Your task to perform on an android device: Is it going to rain this weekend? Image 0: 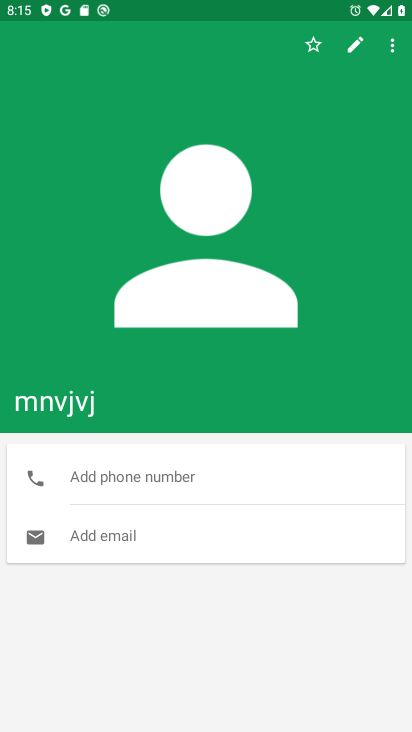
Step 0: press home button
Your task to perform on an android device: Is it going to rain this weekend? Image 1: 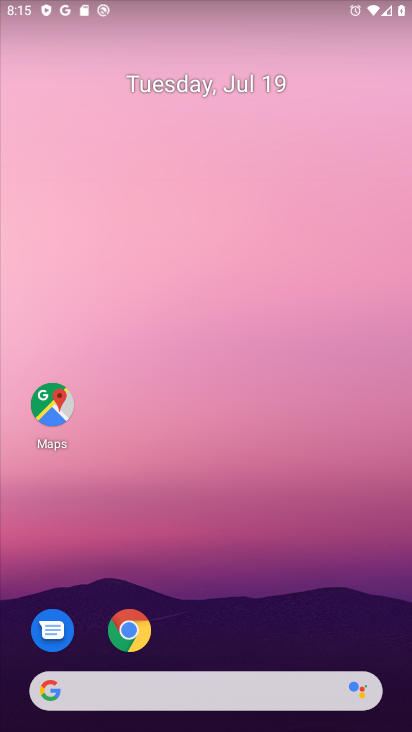
Step 1: click (201, 703)
Your task to perform on an android device: Is it going to rain this weekend? Image 2: 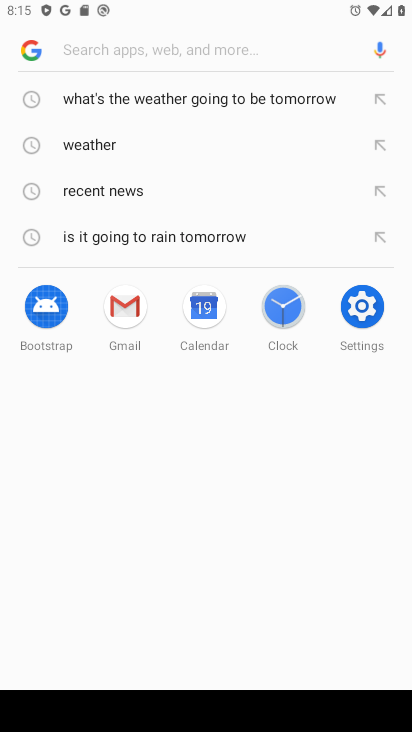
Step 2: type "is it going to rain this weekend"
Your task to perform on an android device: Is it going to rain this weekend? Image 3: 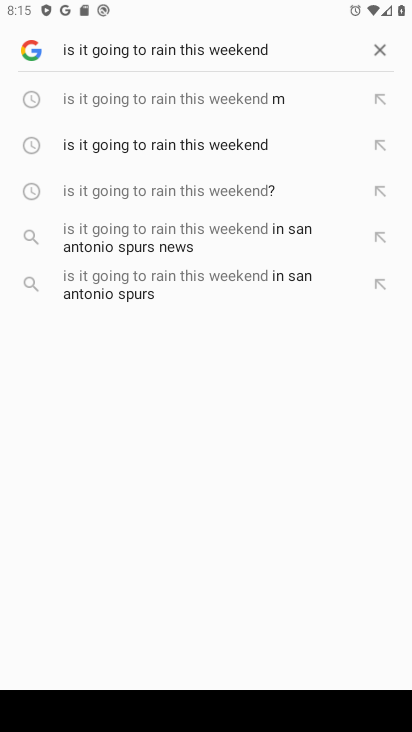
Step 3: click (198, 199)
Your task to perform on an android device: Is it going to rain this weekend? Image 4: 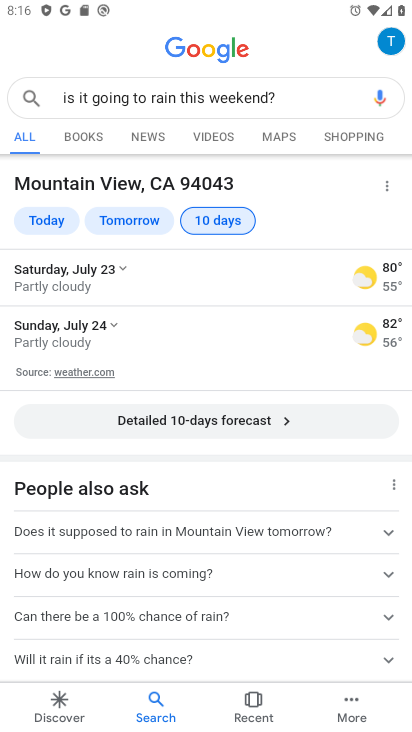
Step 4: task complete